Your task to perform on an android device: Clear the cart on walmart.com. Search for bose soundlink mini on walmart.com, select the first entry, add it to the cart, then select checkout. Image 0: 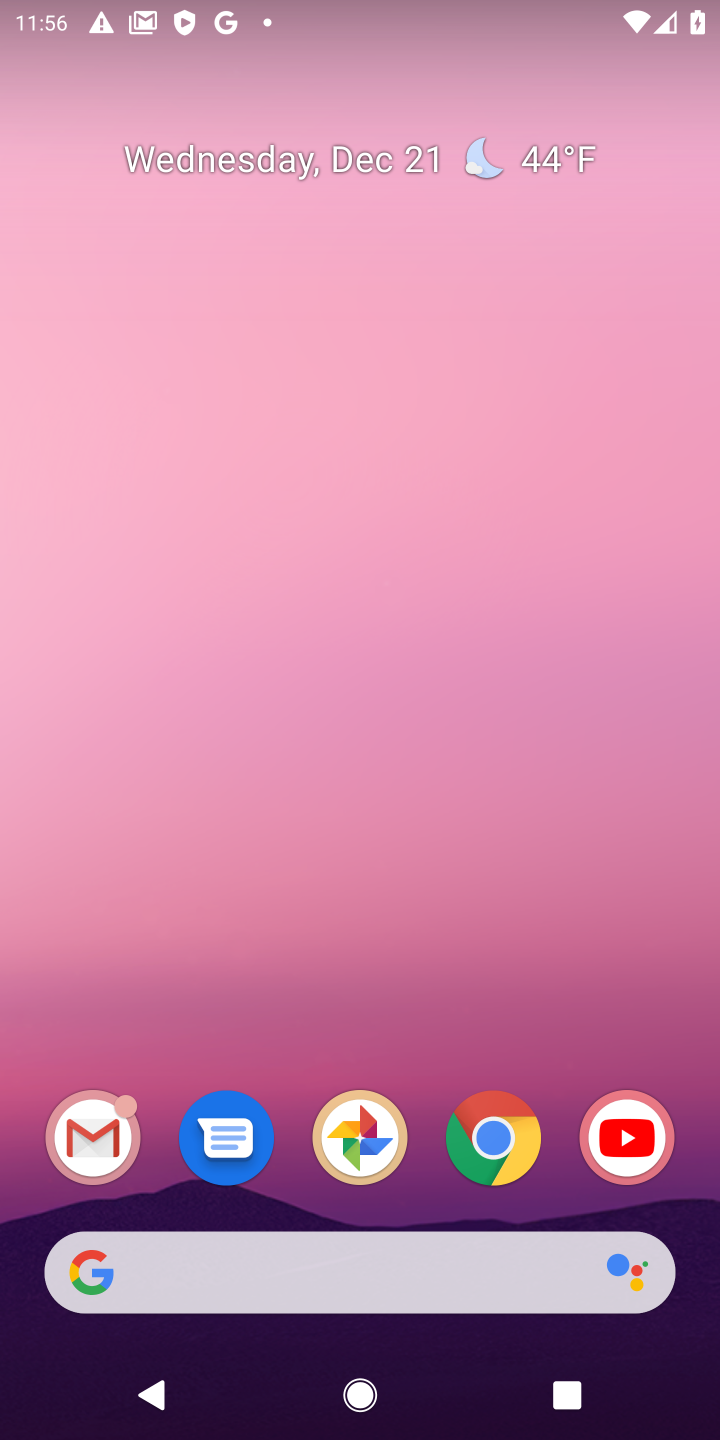
Step 0: click (492, 1143)
Your task to perform on an android device: Clear the cart on walmart.com. Search for bose soundlink mini on walmart.com, select the first entry, add it to the cart, then select checkout. Image 1: 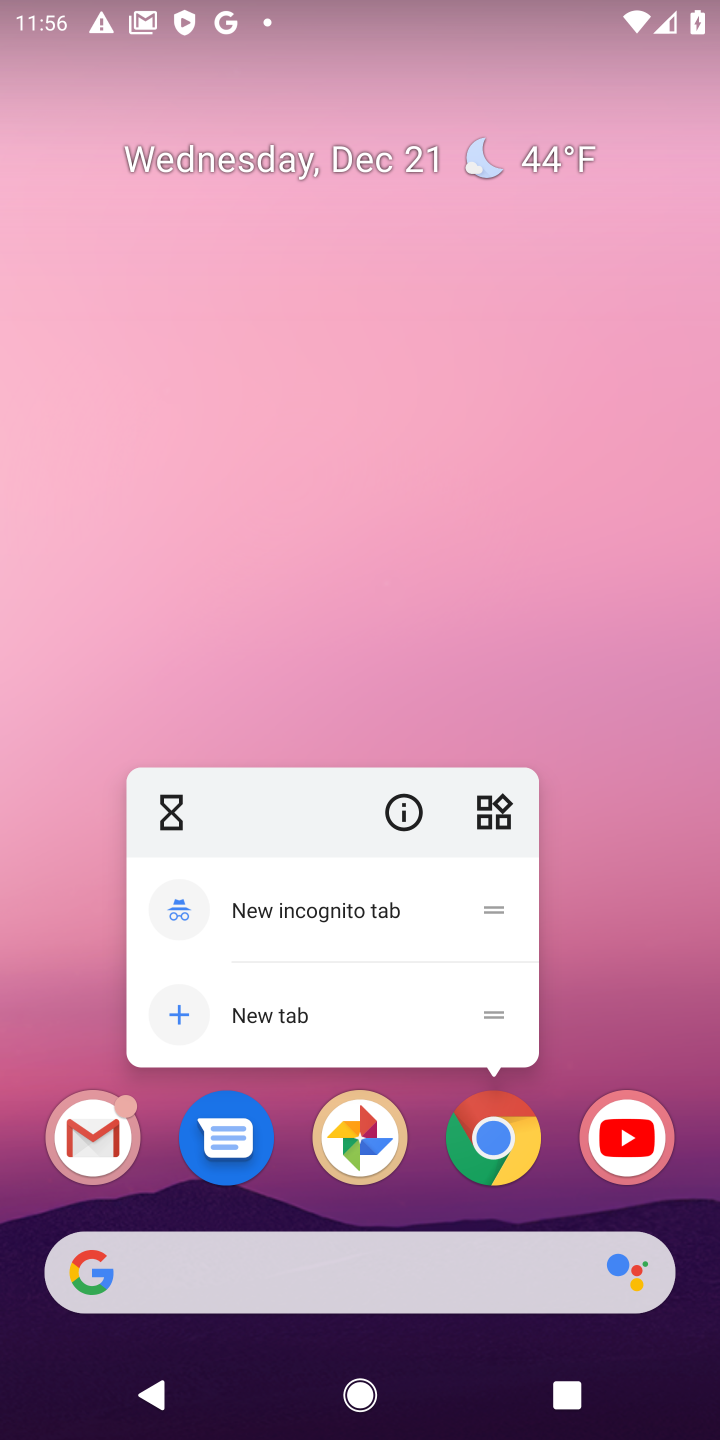
Step 1: click (492, 1143)
Your task to perform on an android device: Clear the cart on walmart.com. Search for bose soundlink mini on walmart.com, select the first entry, add it to the cart, then select checkout. Image 2: 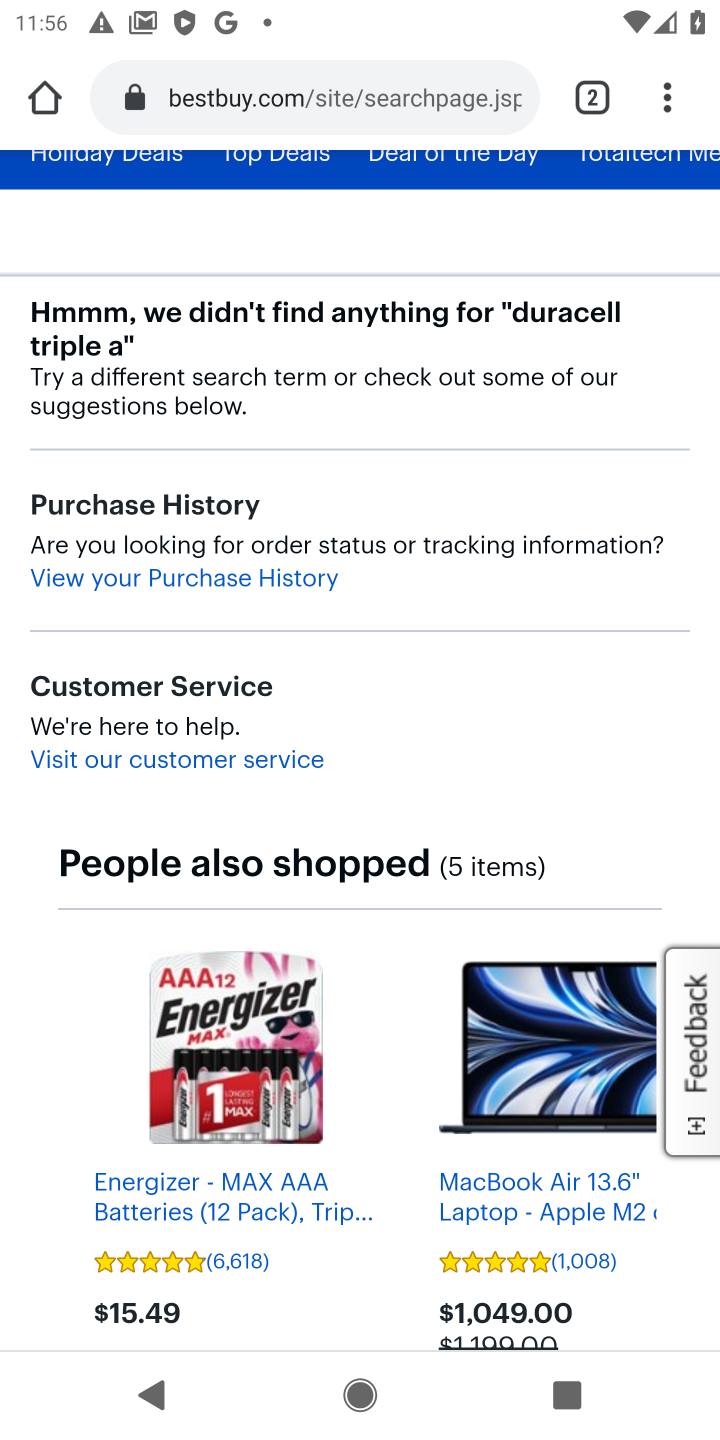
Step 2: click (240, 97)
Your task to perform on an android device: Clear the cart on walmart.com. Search for bose soundlink mini on walmart.com, select the first entry, add it to the cart, then select checkout. Image 3: 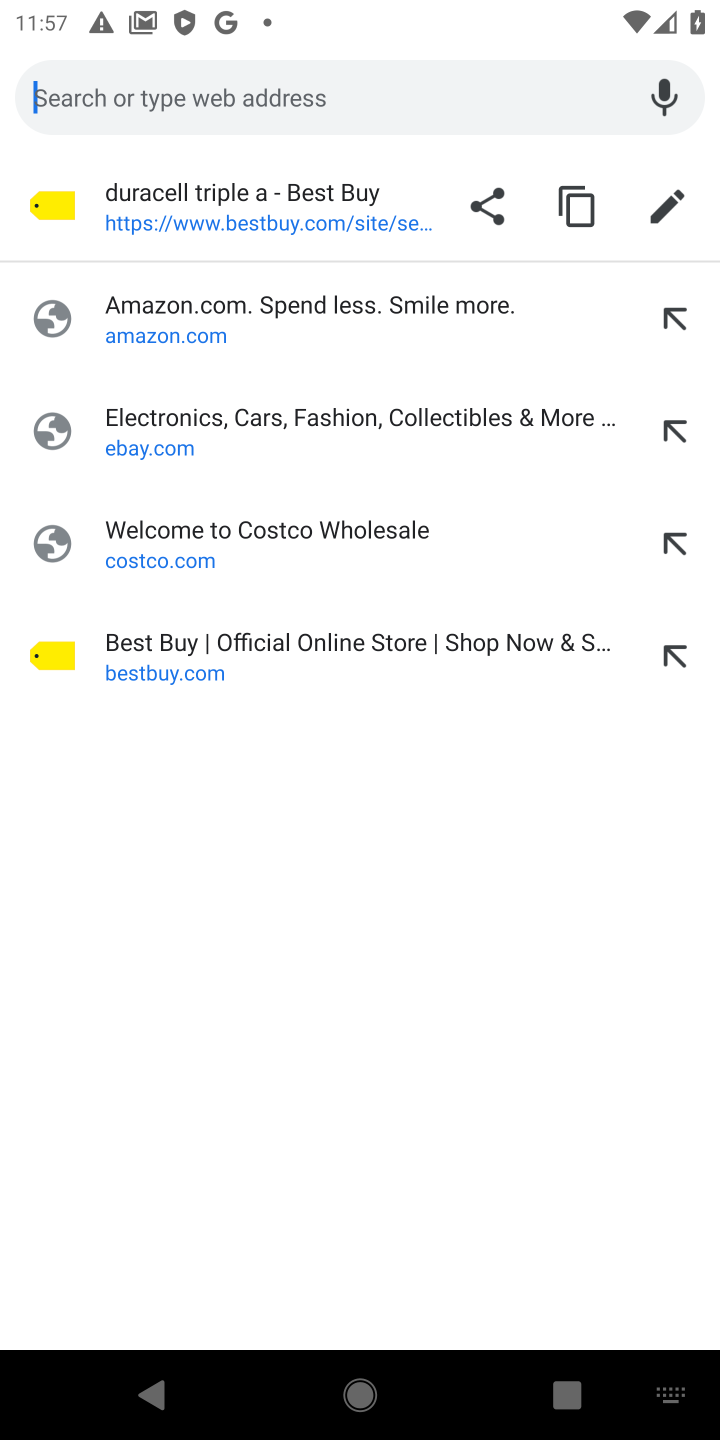
Step 3: type "walmart.com"
Your task to perform on an android device: Clear the cart on walmart.com. Search for bose soundlink mini on walmart.com, select the first entry, add it to the cart, then select checkout. Image 4: 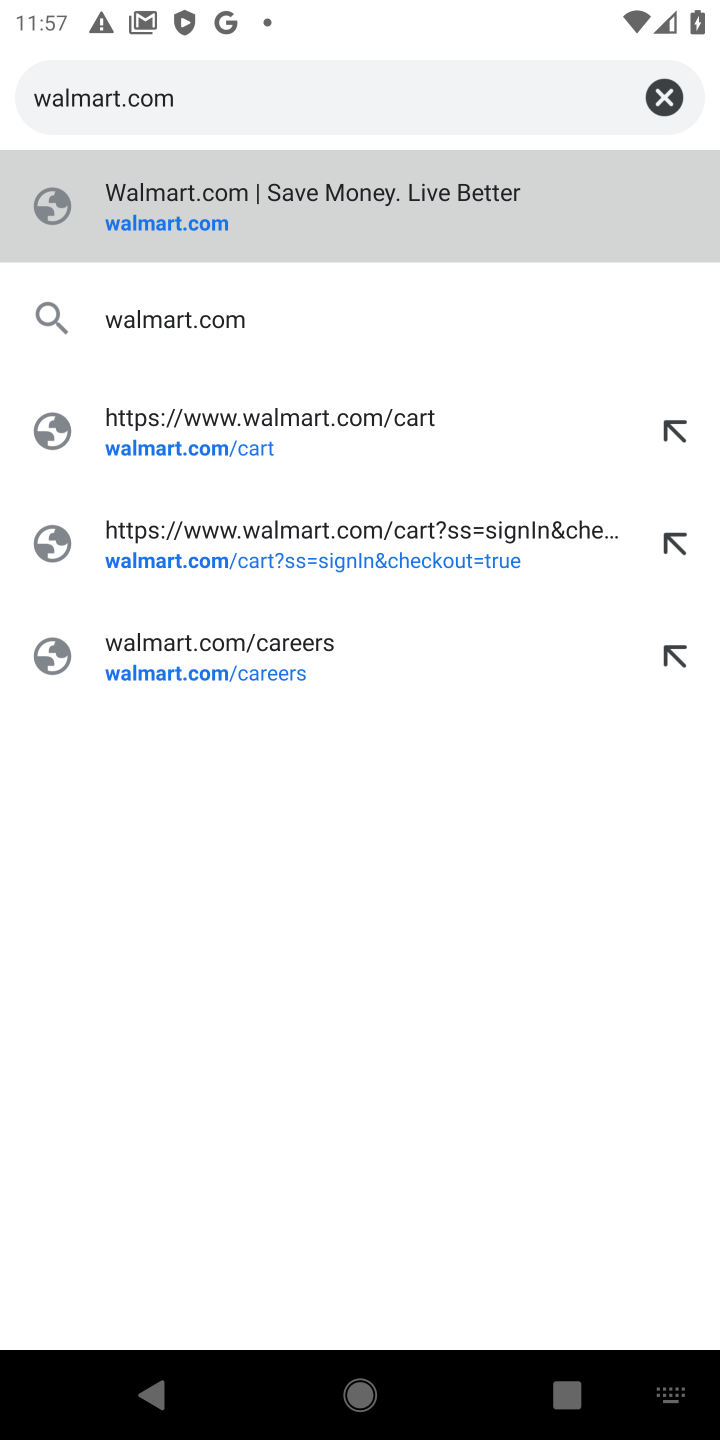
Step 4: click (144, 222)
Your task to perform on an android device: Clear the cart on walmart.com. Search for bose soundlink mini on walmart.com, select the first entry, add it to the cart, then select checkout. Image 5: 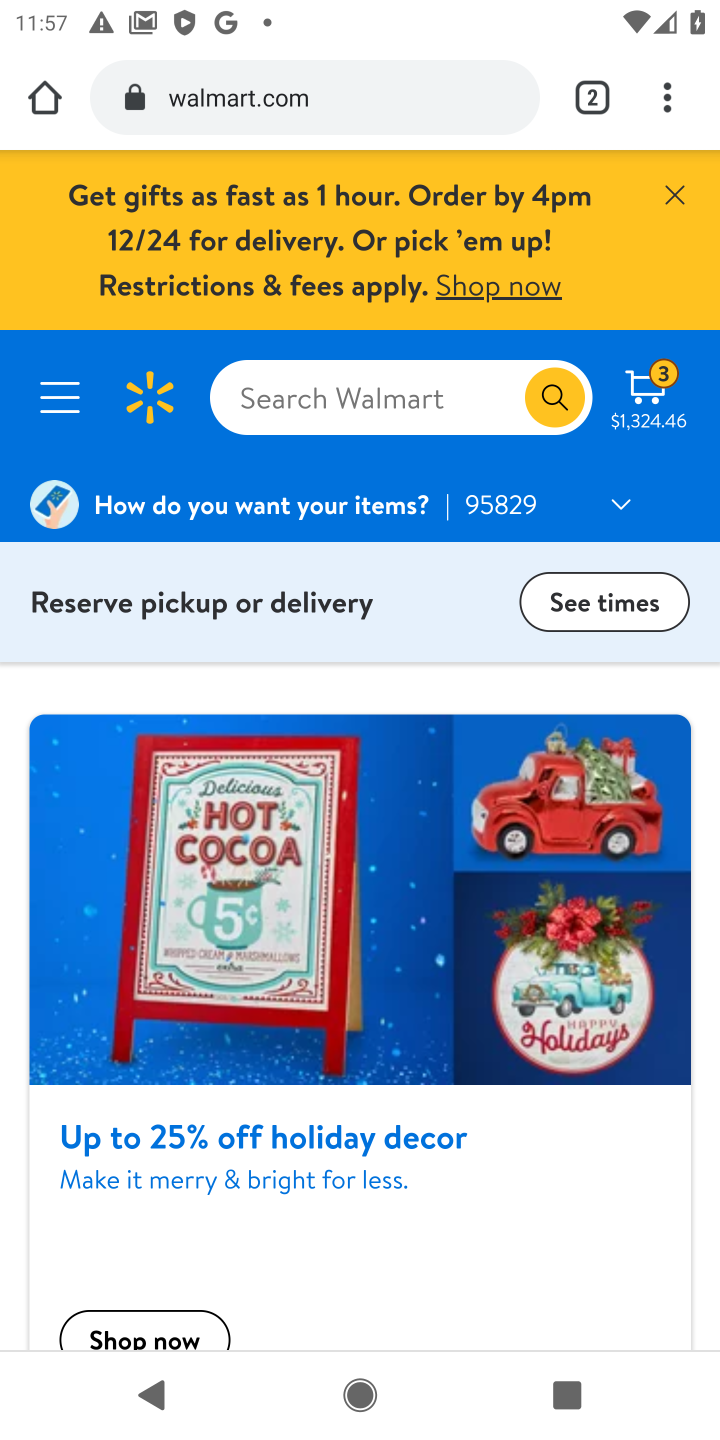
Step 5: click (647, 395)
Your task to perform on an android device: Clear the cart on walmart.com. Search for bose soundlink mini on walmart.com, select the first entry, add it to the cart, then select checkout. Image 6: 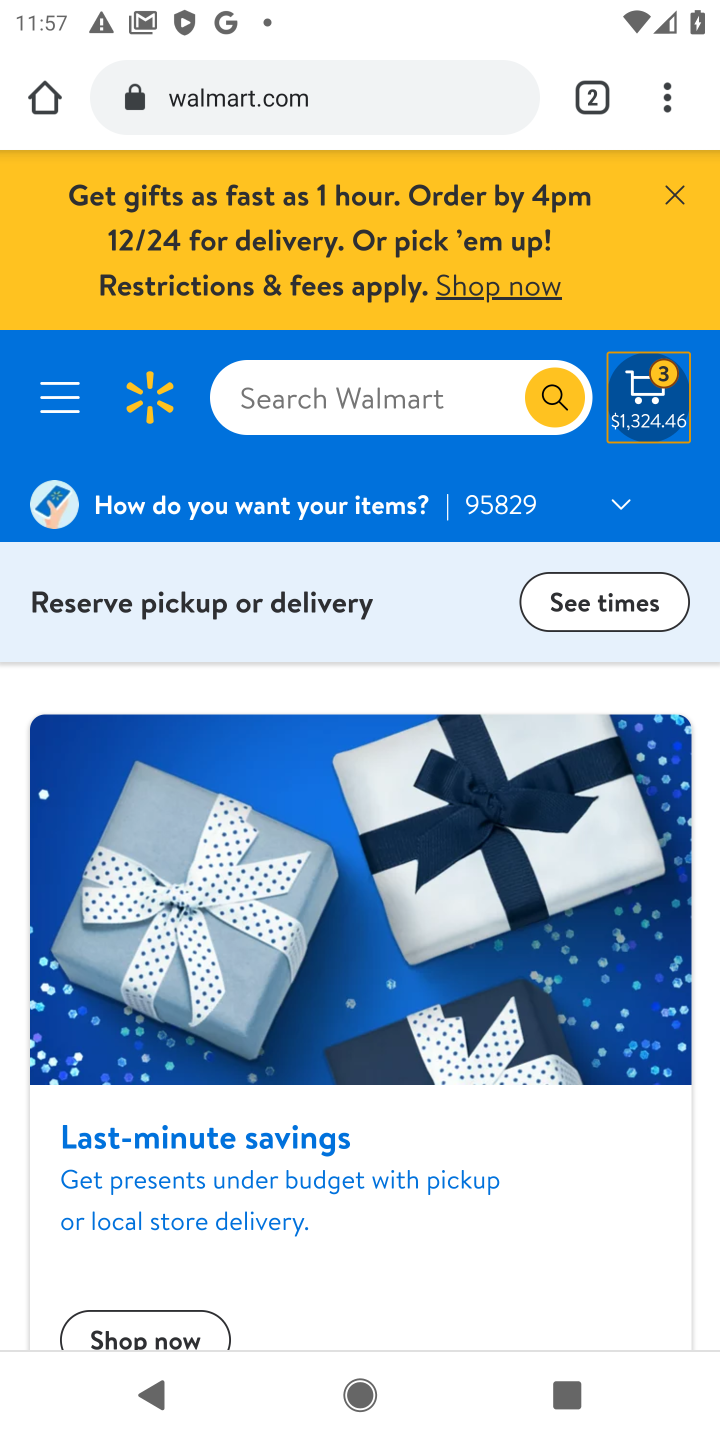
Step 6: drag from (296, 1094) to (267, 729)
Your task to perform on an android device: Clear the cart on walmart.com. Search for bose soundlink mini on walmart.com, select the first entry, add it to the cart, then select checkout. Image 7: 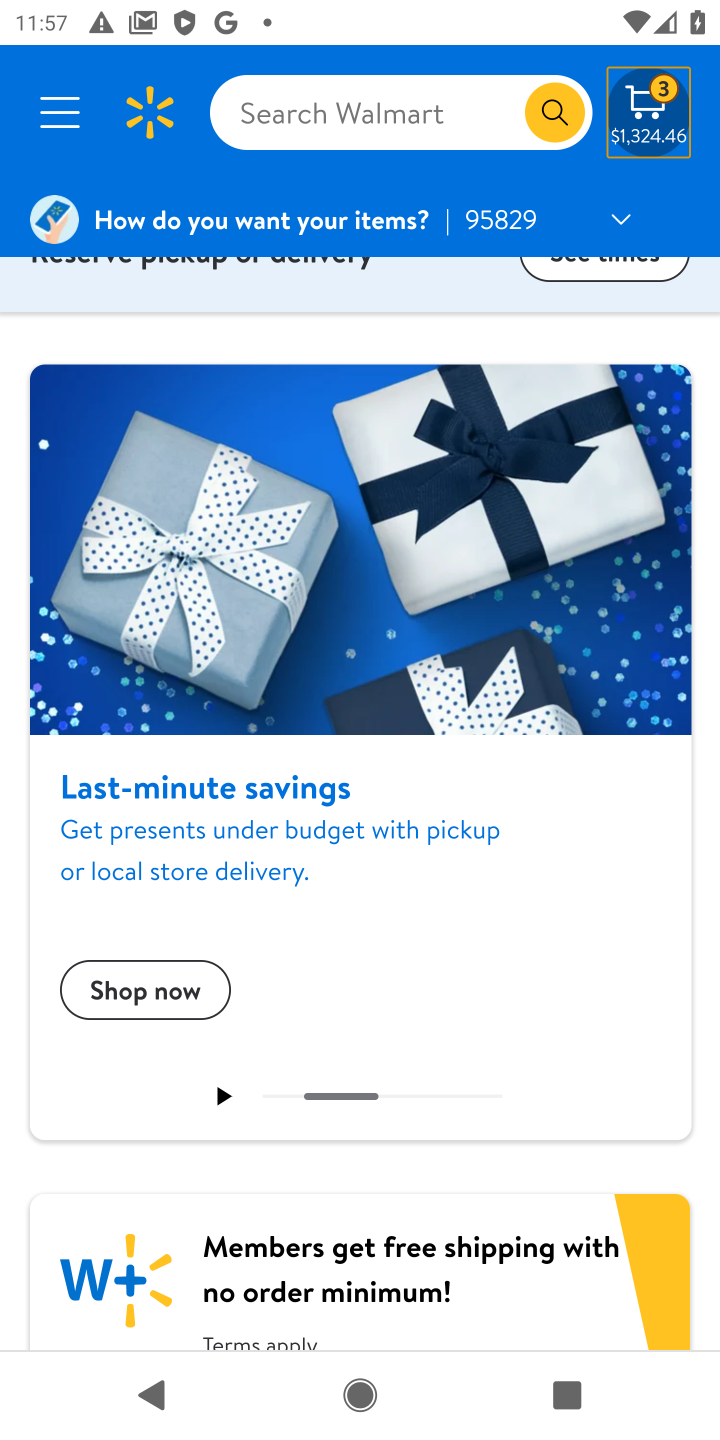
Step 7: click (644, 105)
Your task to perform on an android device: Clear the cart on walmart.com. Search for bose soundlink mini on walmart.com, select the first entry, add it to the cart, then select checkout. Image 8: 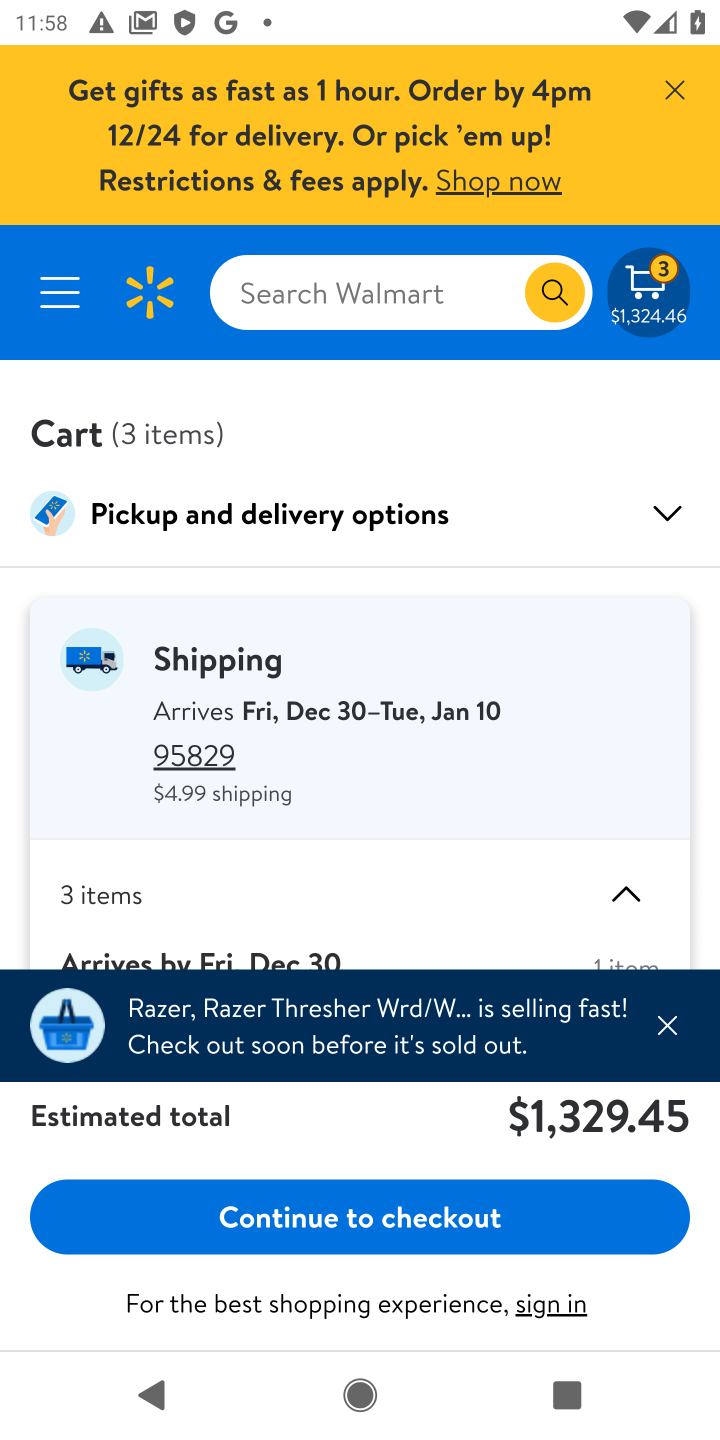
Step 8: drag from (295, 881) to (261, 472)
Your task to perform on an android device: Clear the cart on walmart.com. Search for bose soundlink mini on walmart.com, select the first entry, add it to the cart, then select checkout. Image 9: 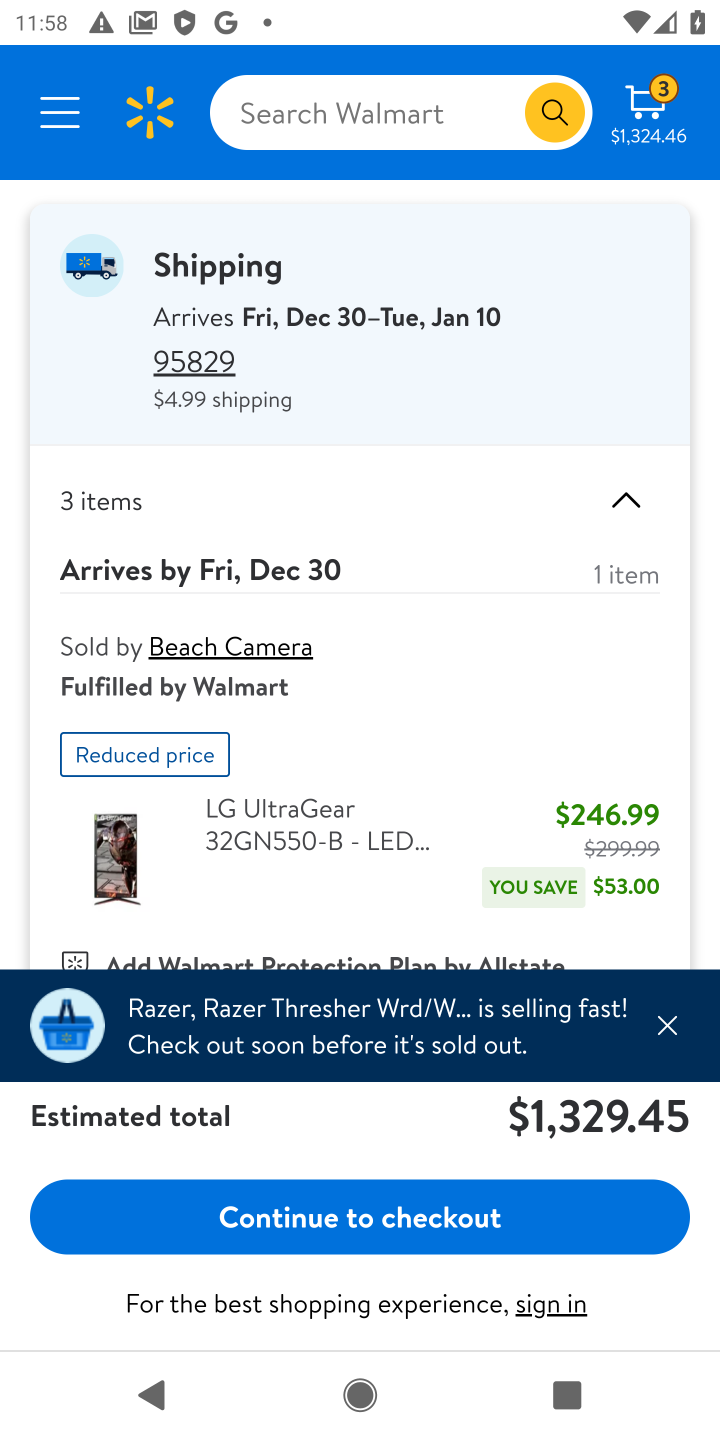
Step 9: click (668, 1027)
Your task to perform on an android device: Clear the cart on walmart.com. Search for bose soundlink mini on walmart.com, select the first entry, add it to the cart, then select checkout. Image 10: 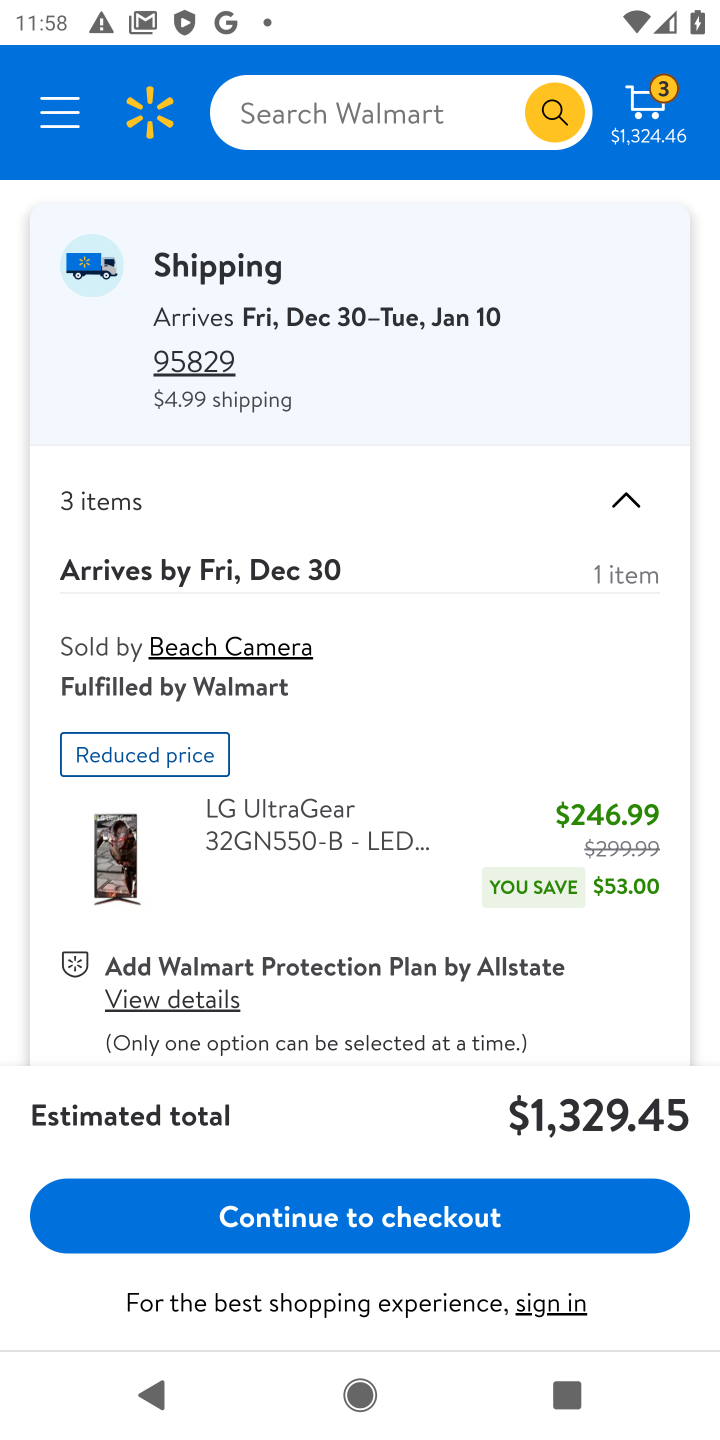
Step 10: drag from (309, 912) to (303, 522)
Your task to perform on an android device: Clear the cart on walmart.com. Search for bose soundlink mini on walmart.com, select the first entry, add it to the cart, then select checkout. Image 11: 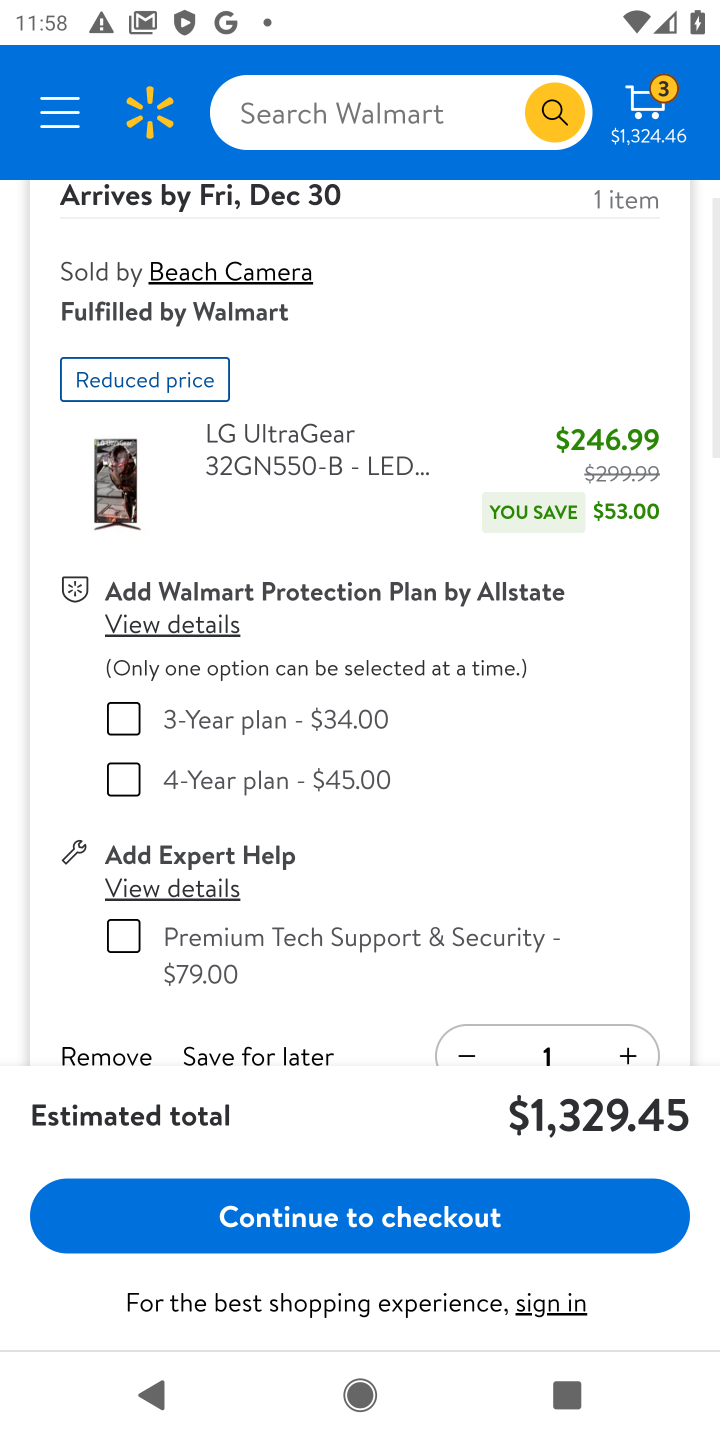
Step 11: drag from (187, 899) to (187, 557)
Your task to perform on an android device: Clear the cart on walmart.com. Search for bose soundlink mini on walmart.com, select the first entry, add it to the cart, then select checkout. Image 12: 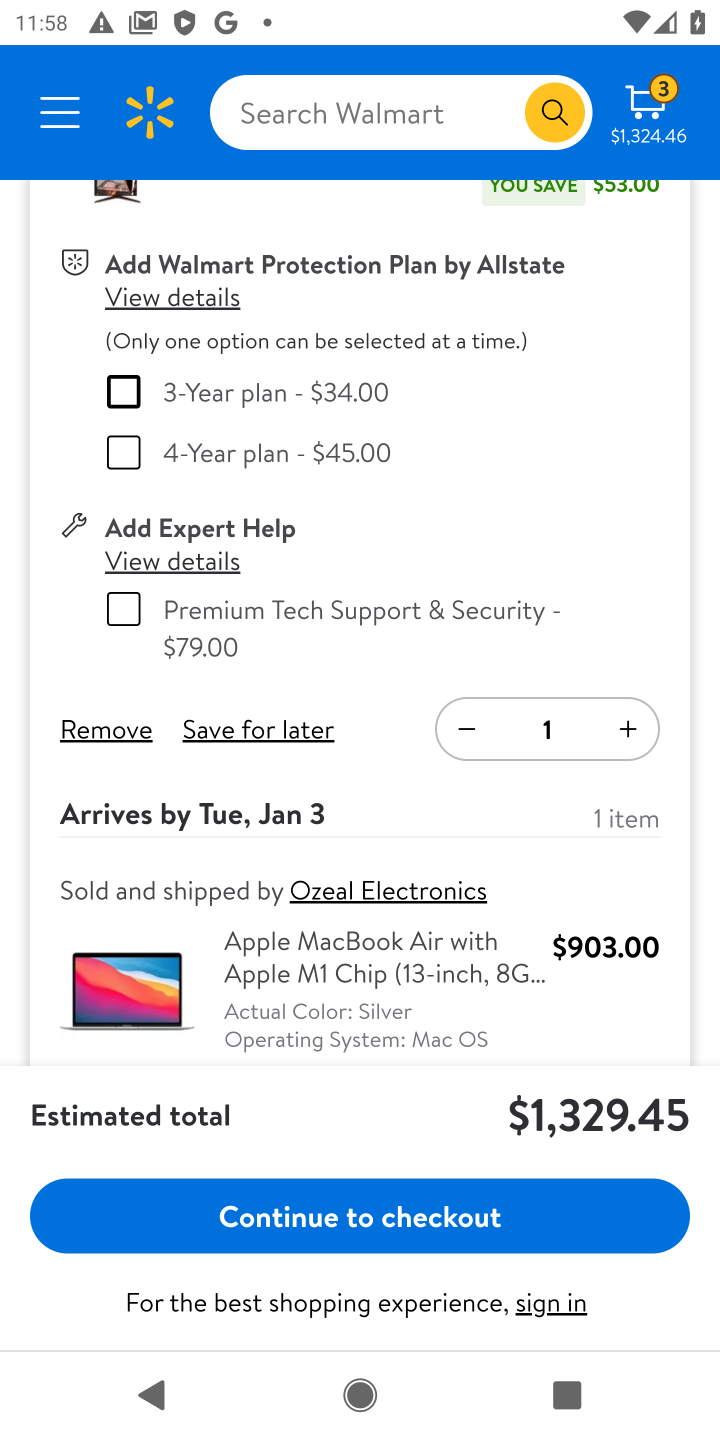
Step 12: click (105, 735)
Your task to perform on an android device: Clear the cart on walmart.com. Search for bose soundlink mini on walmart.com, select the first entry, add it to the cart, then select checkout. Image 13: 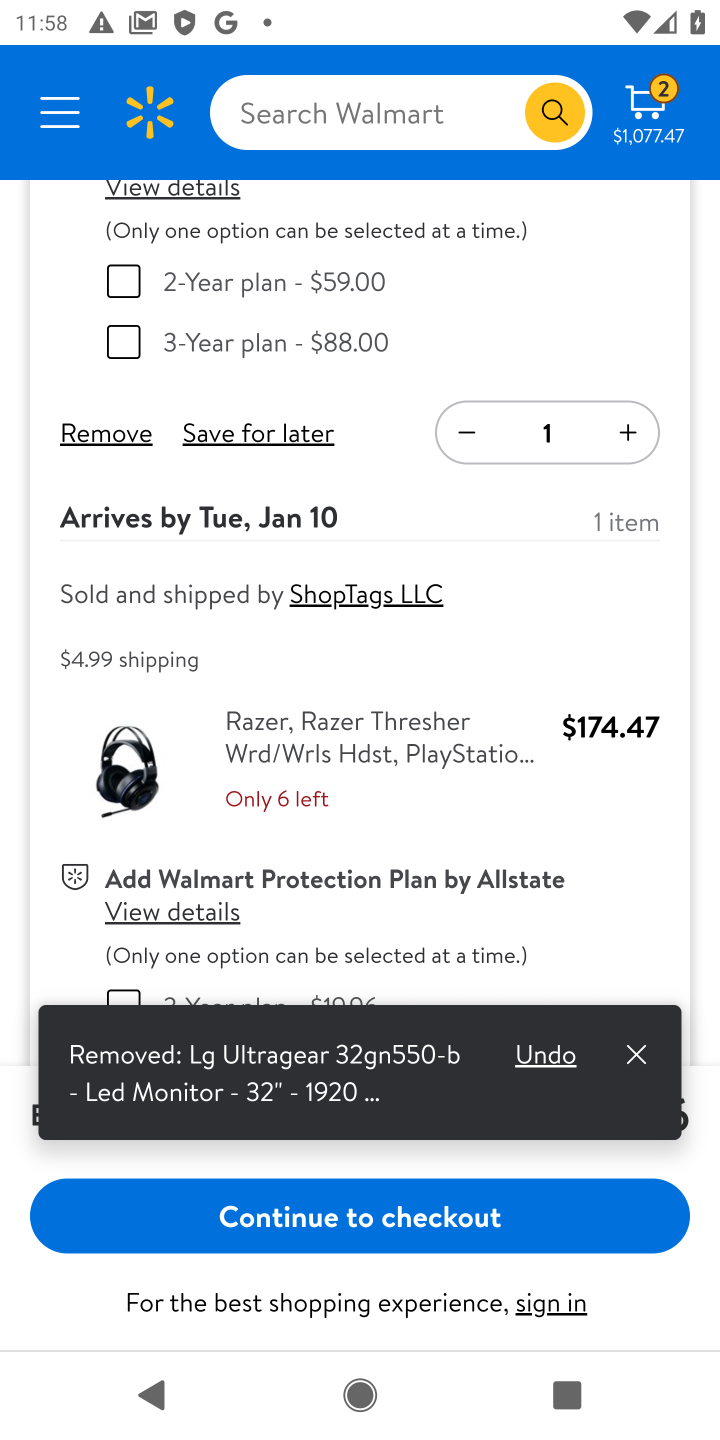
Step 13: click (87, 432)
Your task to perform on an android device: Clear the cart on walmart.com. Search for bose soundlink mini on walmart.com, select the first entry, add it to the cart, then select checkout. Image 14: 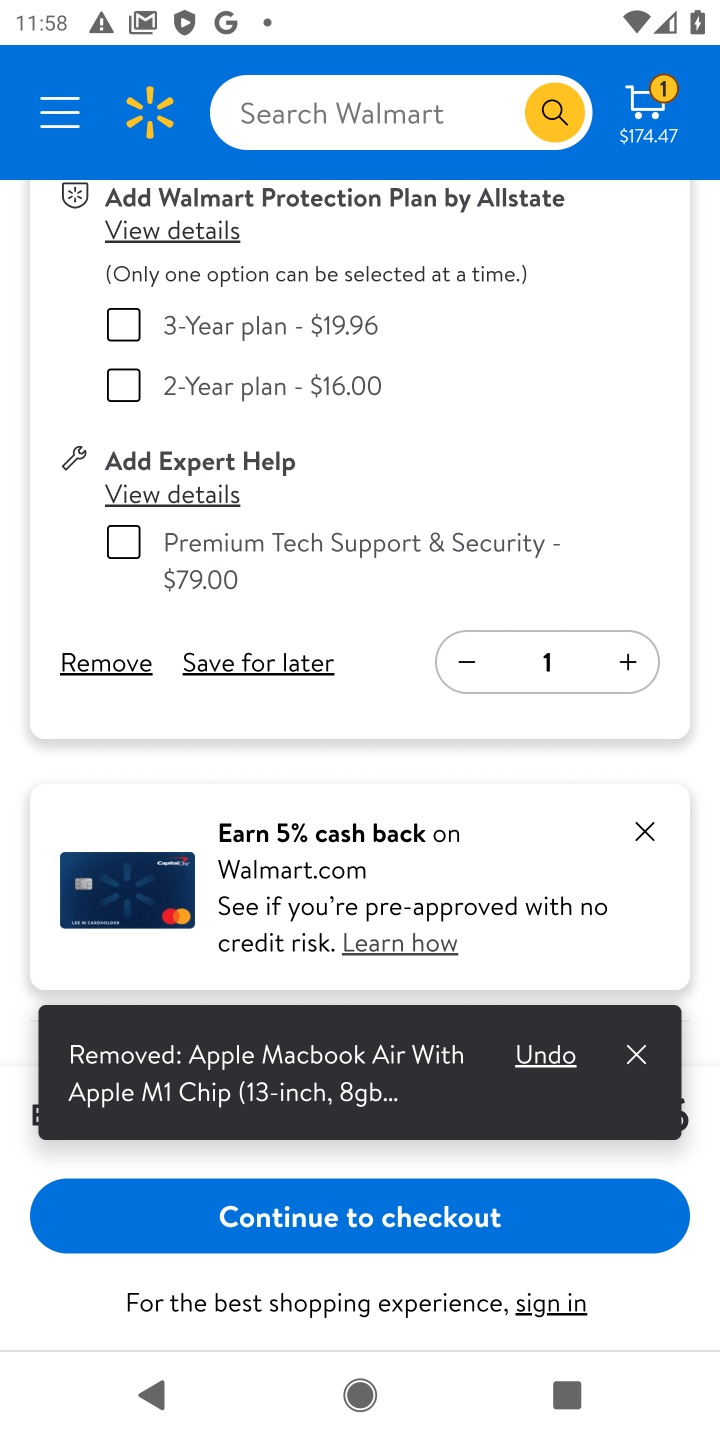
Step 14: click (85, 667)
Your task to perform on an android device: Clear the cart on walmart.com. Search for bose soundlink mini on walmart.com, select the first entry, add it to the cart, then select checkout. Image 15: 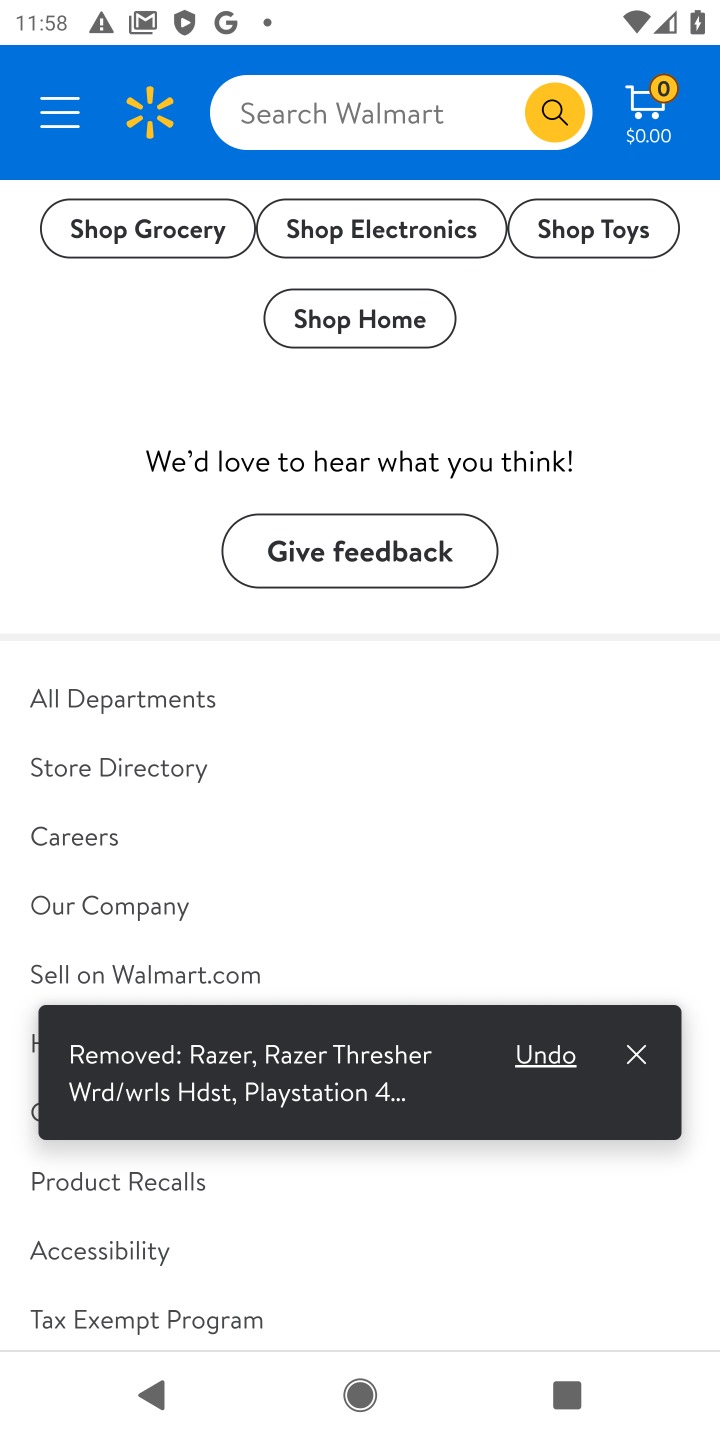
Step 15: drag from (99, 507) to (95, 992)
Your task to perform on an android device: Clear the cart on walmart.com. Search for bose soundlink mini on walmart.com, select the first entry, add it to the cart, then select checkout. Image 16: 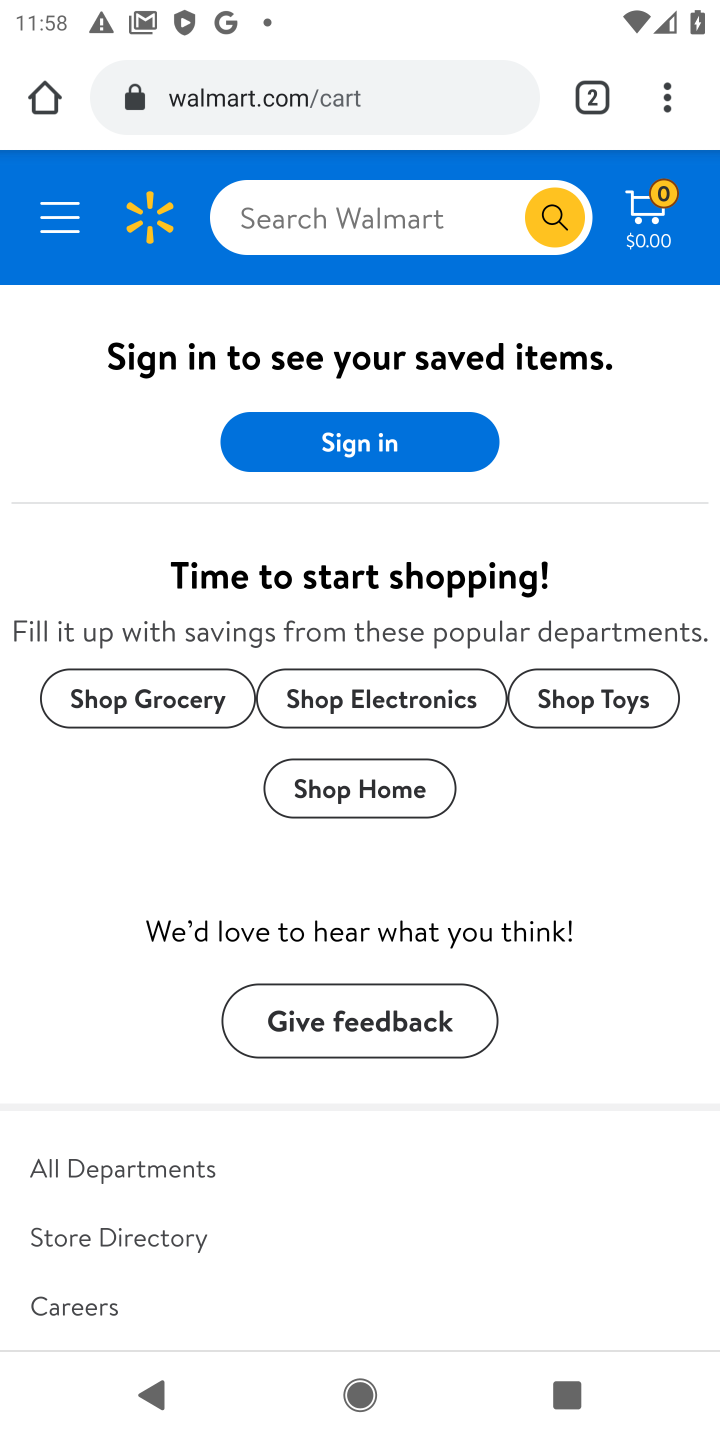
Step 16: click (291, 224)
Your task to perform on an android device: Clear the cart on walmart.com. Search for bose soundlink mini on walmart.com, select the first entry, add it to the cart, then select checkout. Image 17: 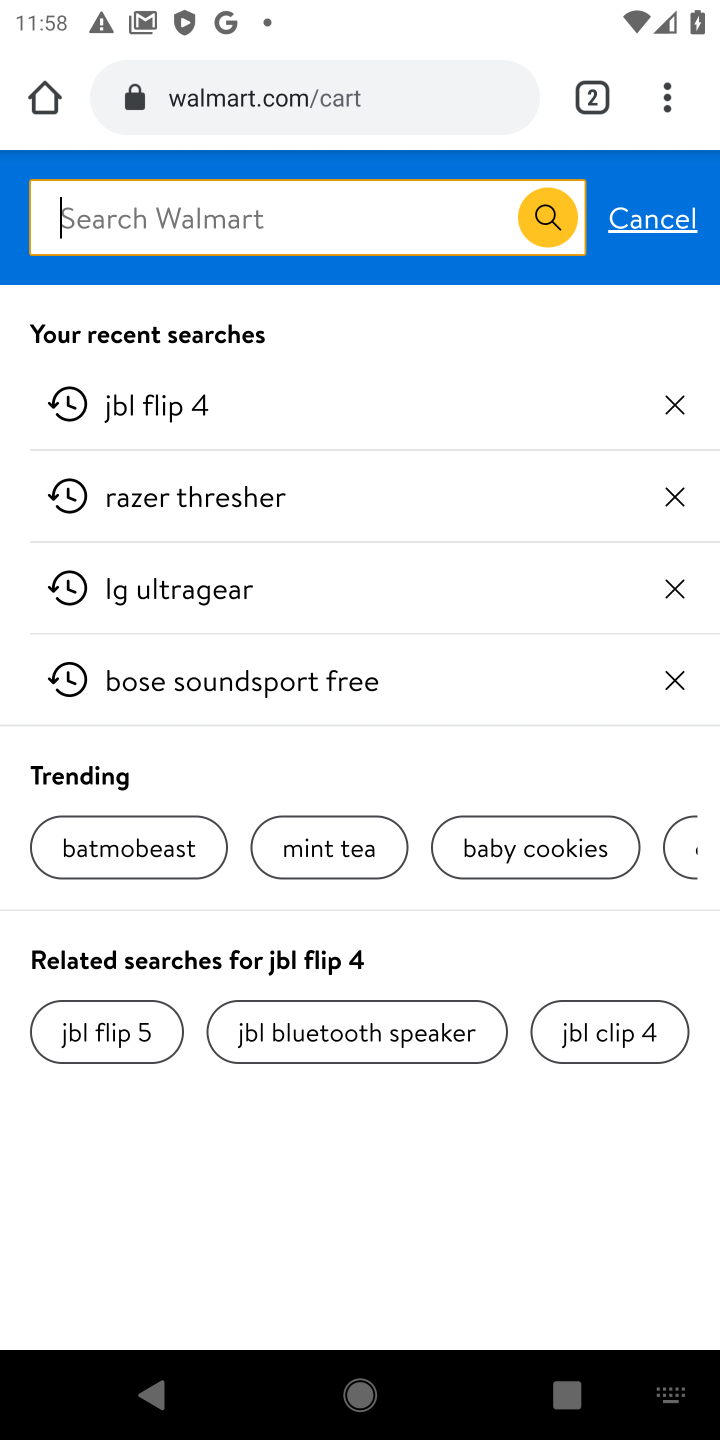
Step 17: type "bose soundlink mini"
Your task to perform on an android device: Clear the cart on walmart.com. Search for bose soundlink mini on walmart.com, select the first entry, add it to the cart, then select checkout. Image 18: 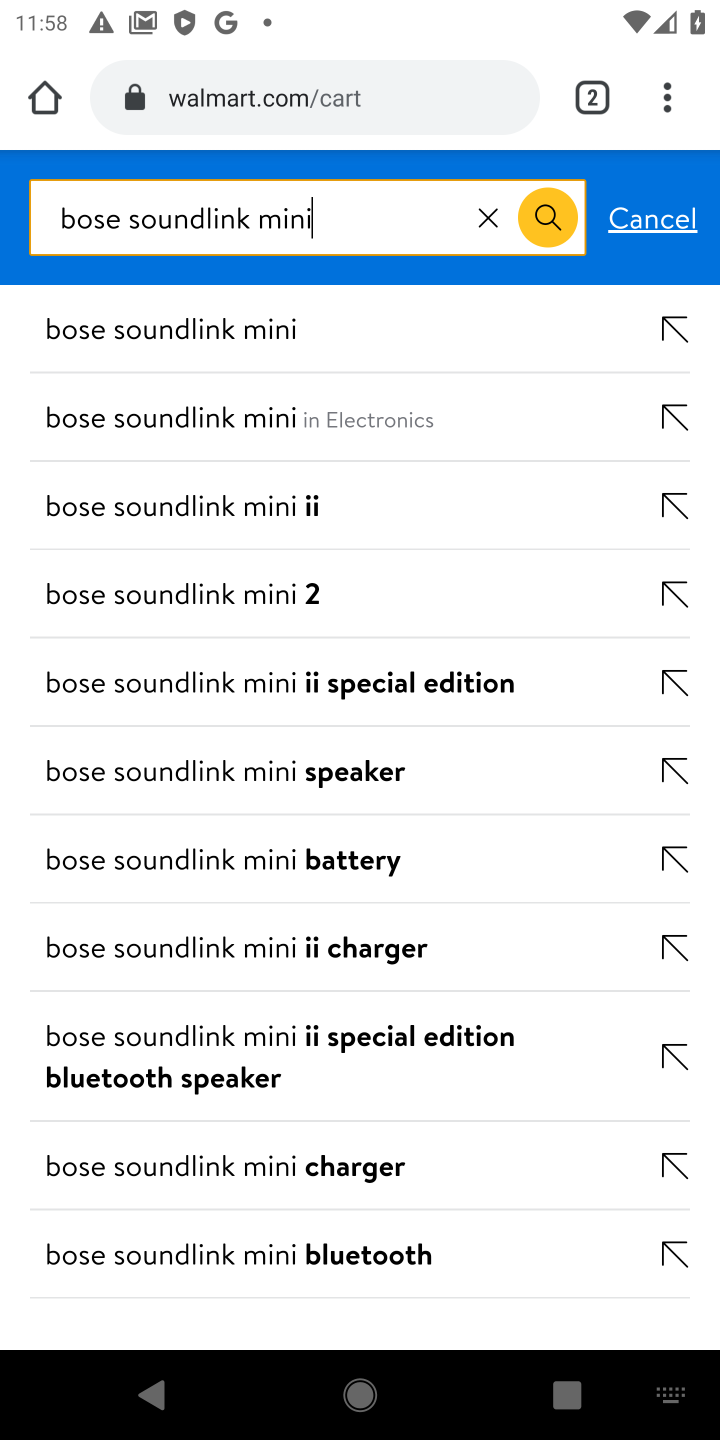
Step 18: click (183, 341)
Your task to perform on an android device: Clear the cart on walmart.com. Search for bose soundlink mini on walmart.com, select the first entry, add it to the cart, then select checkout. Image 19: 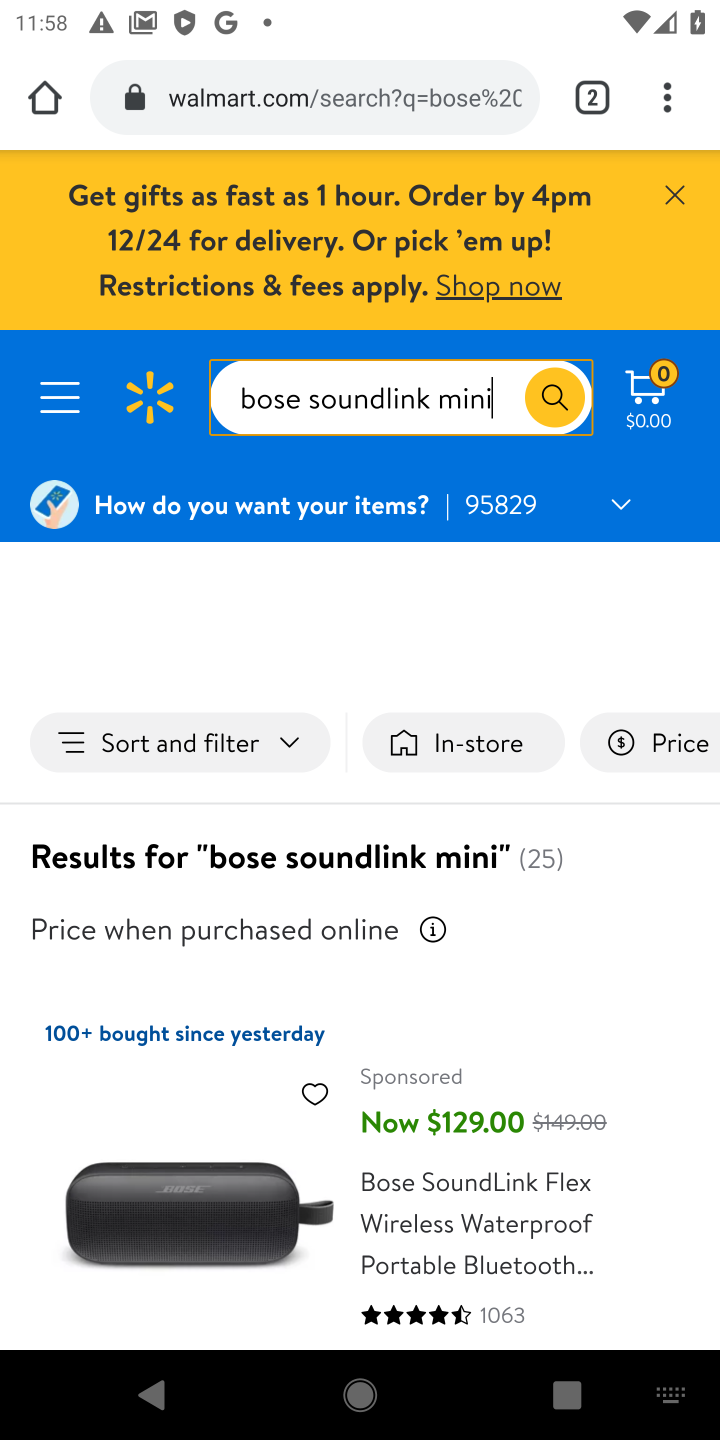
Step 19: task complete